Your task to perform on an android device: delete the emails in spam in the gmail app Image 0: 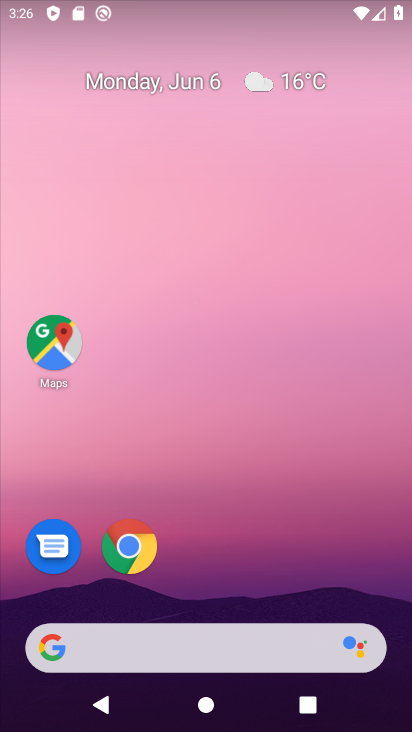
Step 0: drag from (256, 566) to (287, 38)
Your task to perform on an android device: delete the emails in spam in the gmail app Image 1: 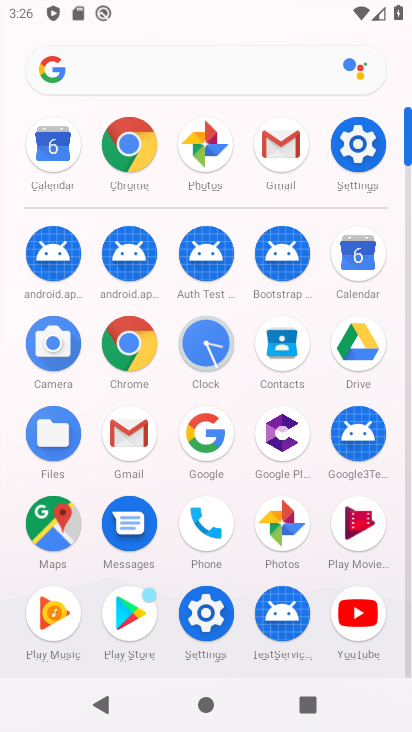
Step 1: click (295, 139)
Your task to perform on an android device: delete the emails in spam in the gmail app Image 2: 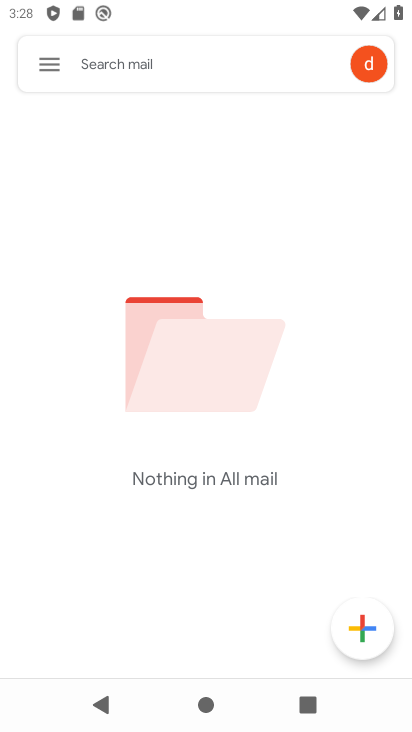
Step 2: task complete